Your task to perform on an android device: Go to Maps Image 0: 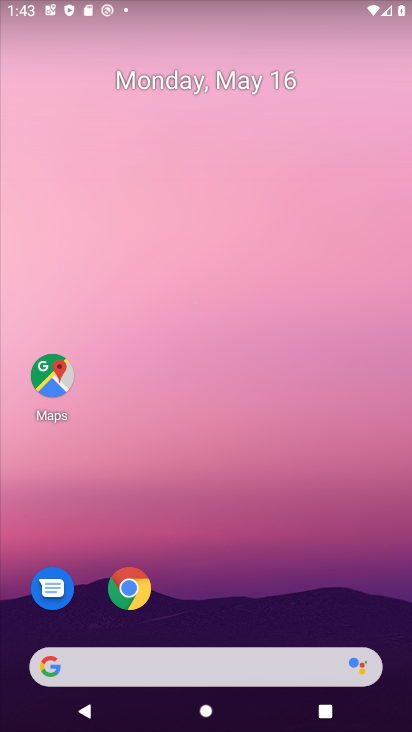
Step 0: click (54, 374)
Your task to perform on an android device: Go to Maps Image 1: 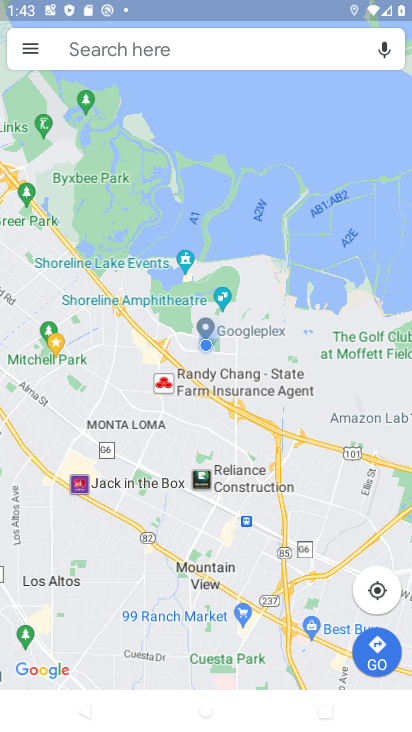
Step 1: task complete